Your task to perform on an android device: turn on wifi Image 0: 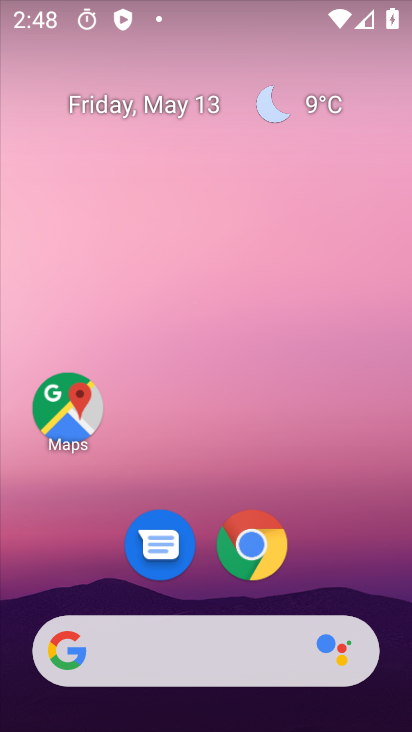
Step 0: drag from (208, 13) to (208, 455)
Your task to perform on an android device: turn on wifi Image 1: 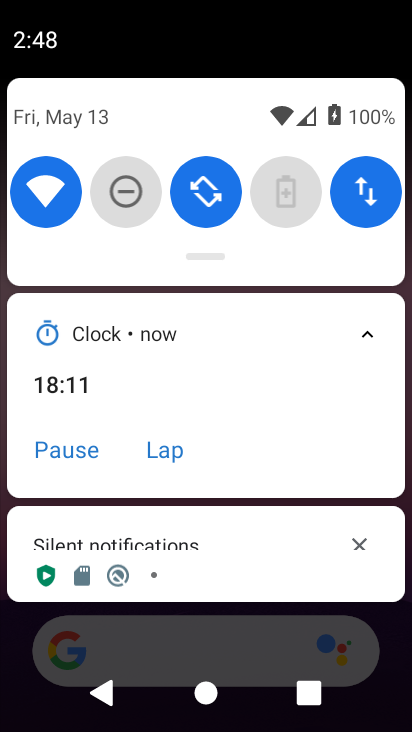
Step 1: task complete